Your task to perform on an android device: When is my next appointment? Image 0: 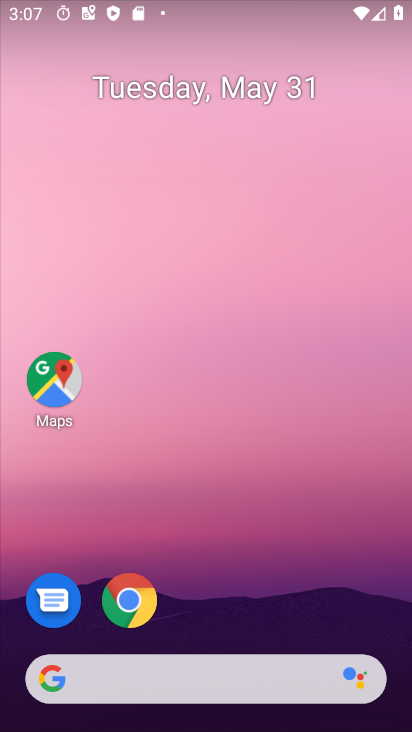
Step 0: drag from (238, 633) to (234, 76)
Your task to perform on an android device: When is my next appointment? Image 1: 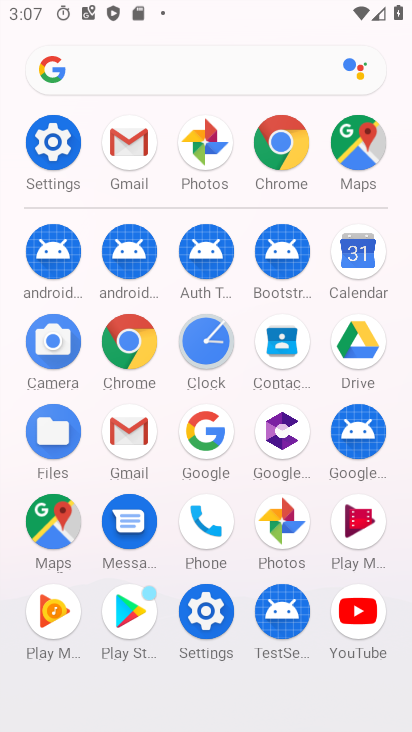
Step 1: click (355, 251)
Your task to perform on an android device: When is my next appointment? Image 2: 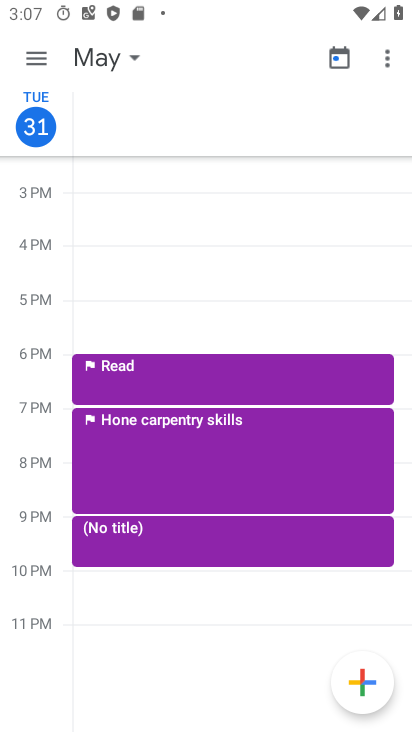
Step 2: click (56, 133)
Your task to perform on an android device: When is my next appointment? Image 3: 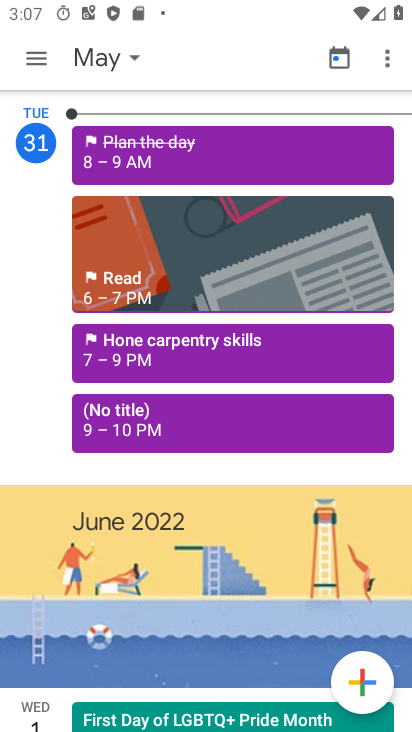
Step 3: task complete